Your task to perform on an android device: Open Google Image 0: 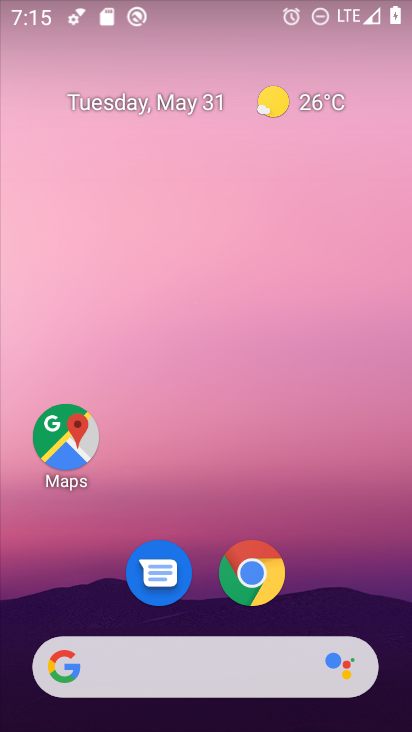
Step 0: drag from (393, 649) to (361, 35)
Your task to perform on an android device: Open Google Image 1: 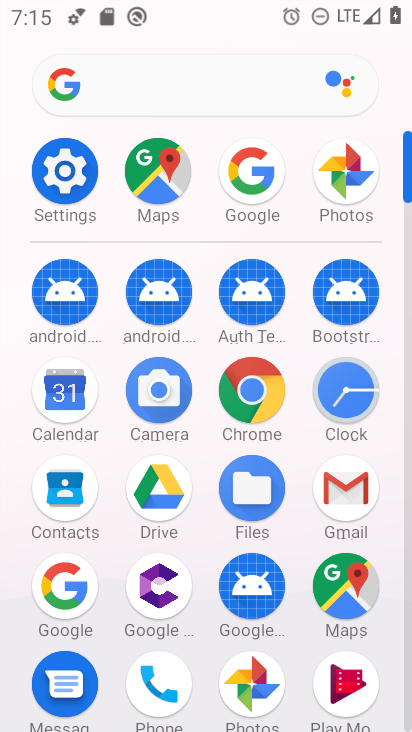
Step 1: click (62, 603)
Your task to perform on an android device: Open Google Image 2: 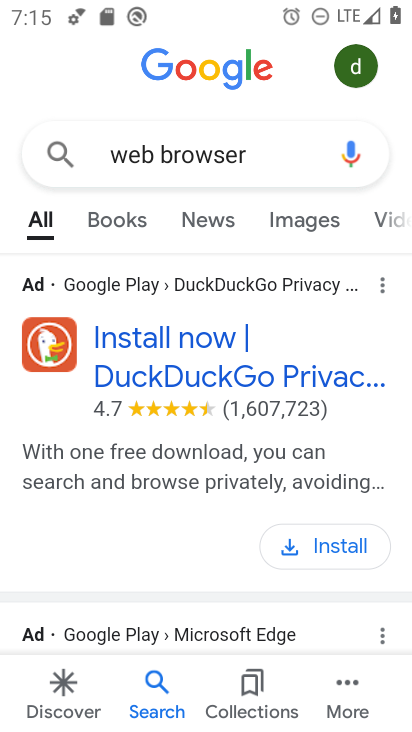
Step 2: task complete